Your task to perform on an android device: Go to Maps Image 0: 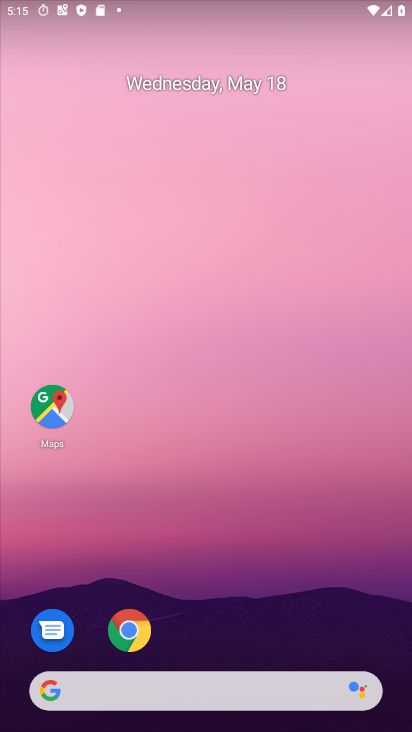
Step 0: click (50, 407)
Your task to perform on an android device: Go to Maps Image 1: 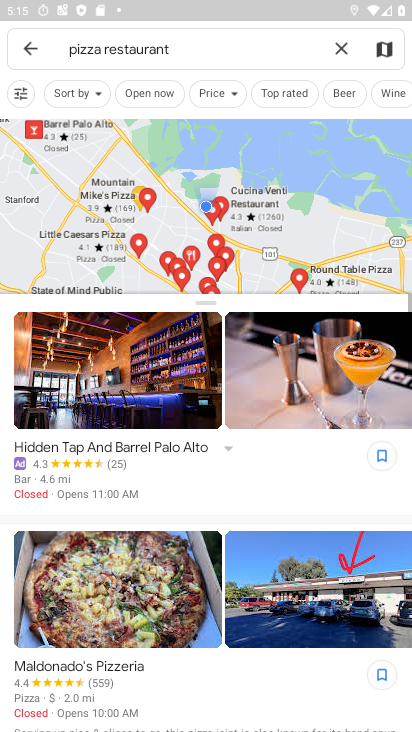
Step 1: click (352, 44)
Your task to perform on an android device: Go to Maps Image 2: 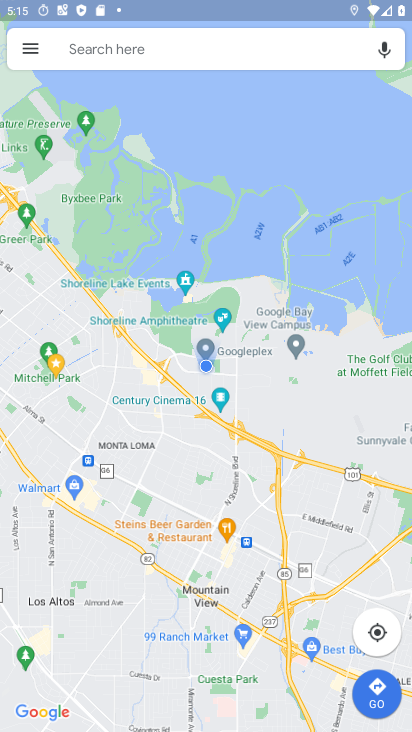
Step 2: task complete